Your task to perform on an android device: Open internet settings Image 0: 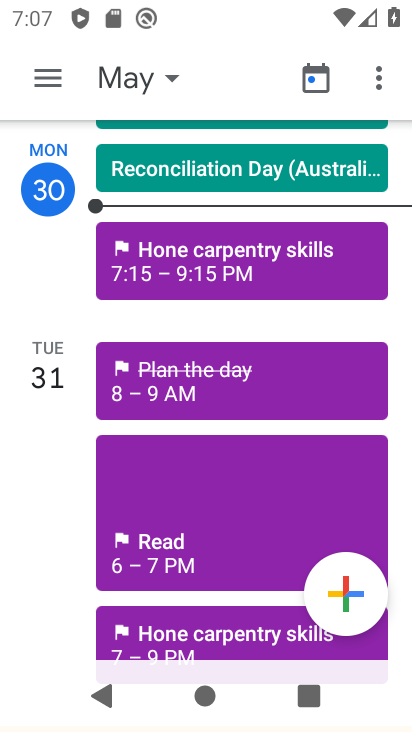
Step 0: press home button
Your task to perform on an android device: Open internet settings Image 1: 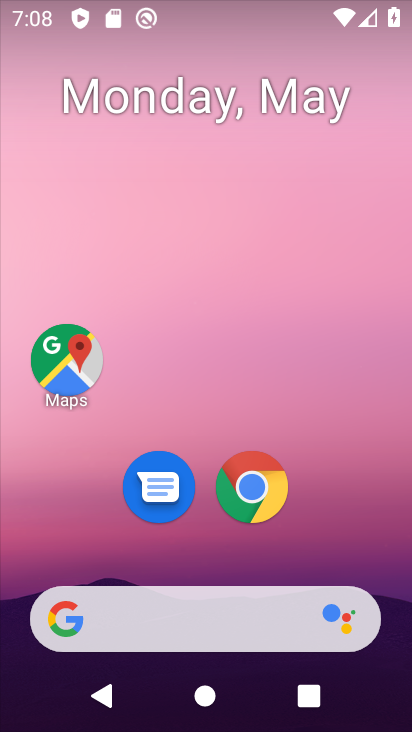
Step 1: drag from (232, 669) to (271, 184)
Your task to perform on an android device: Open internet settings Image 2: 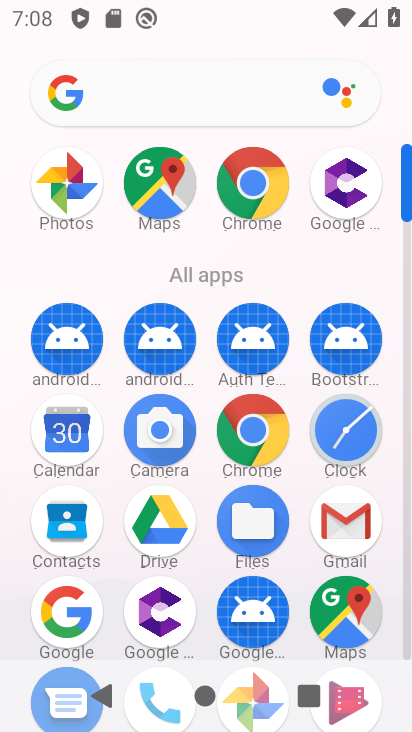
Step 2: drag from (114, 483) to (149, 225)
Your task to perform on an android device: Open internet settings Image 3: 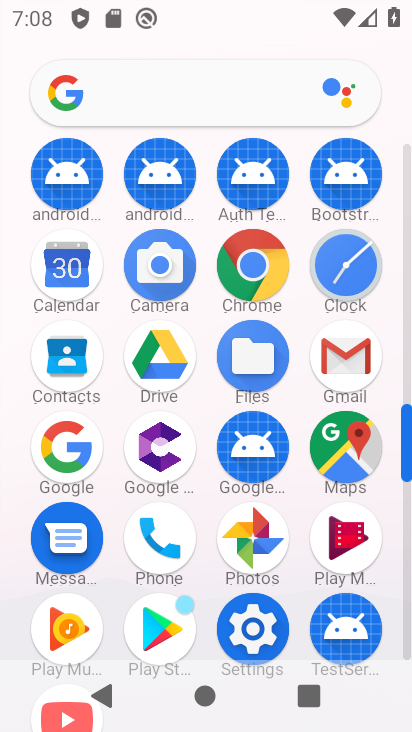
Step 3: click (252, 612)
Your task to perform on an android device: Open internet settings Image 4: 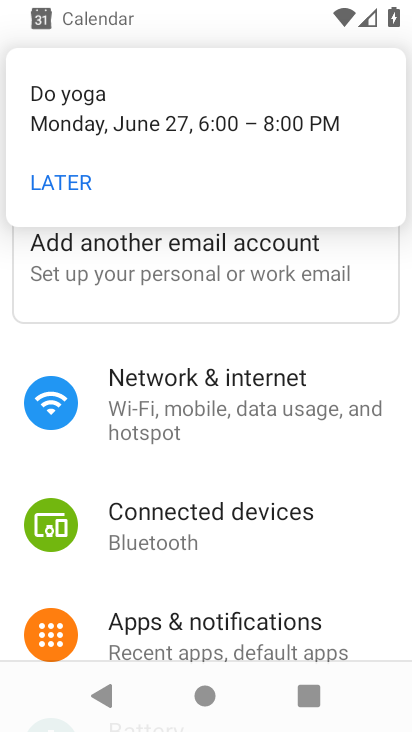
Step 4: click (160, 394)
Your task to perform on an android device: Open internet settings Image 5: 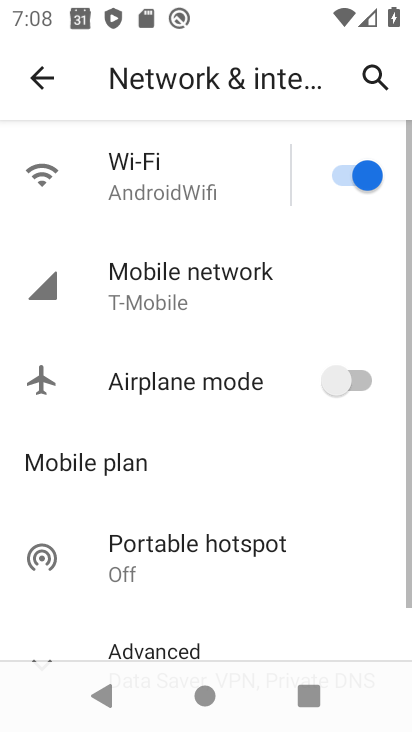
Step 5: click (60, 181)
Your task to perform on an android device: Open internet settings Image 6: 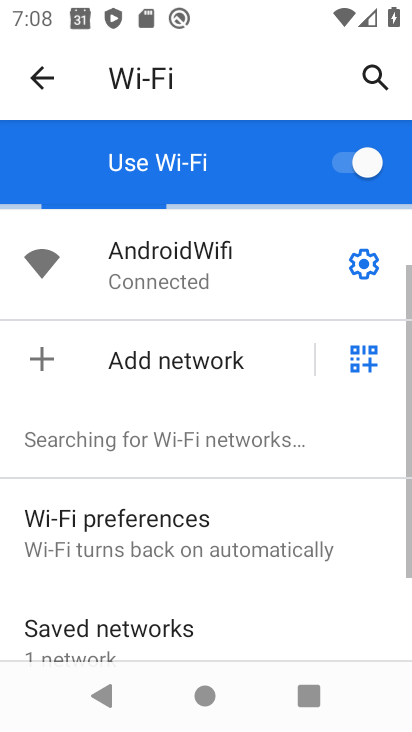
Step 6: click (51, 72)
Your task to perform on an android device: Open internet settings Image 7: 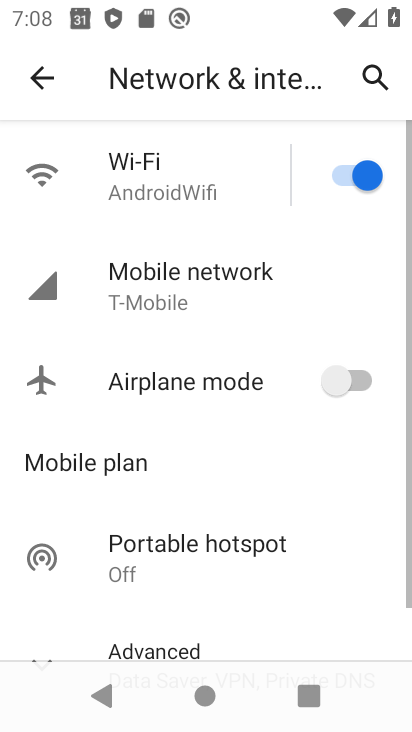
Step 7: task complete